Your task to perform on an android device: delete a single message in the gmail app Image 0: 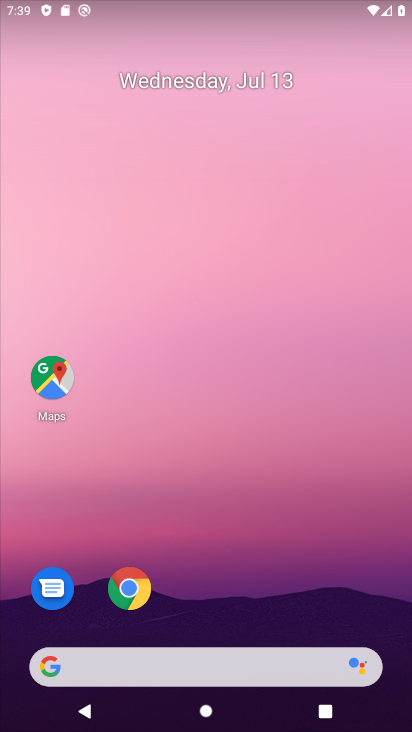
Step 0: drag from (148, 593) to (186, 34)
Your task to perform on an android device: delete a single message in the gmail app Image 1: 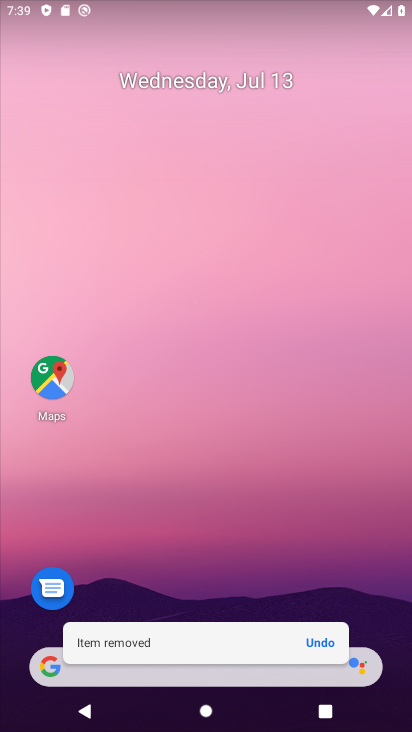
Step 1: drag from (173, 711) to (249, 22)
Your task to perform on an android device: delete a single message in the gmail app Image 2: 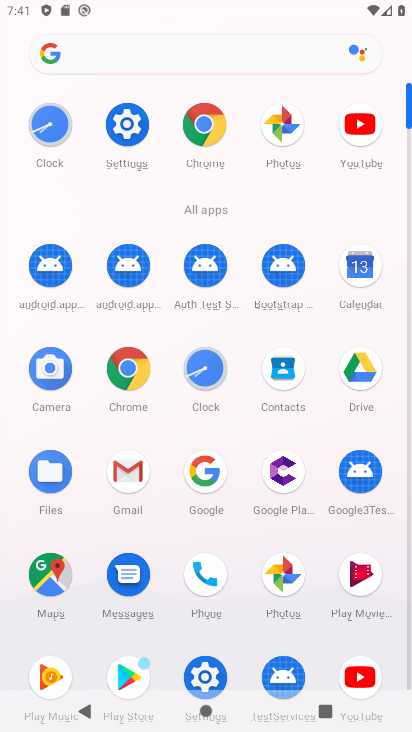
Step 2: click (132, 479)
Your task to perform on an android device: delete a single message in the gmail app Image 3: 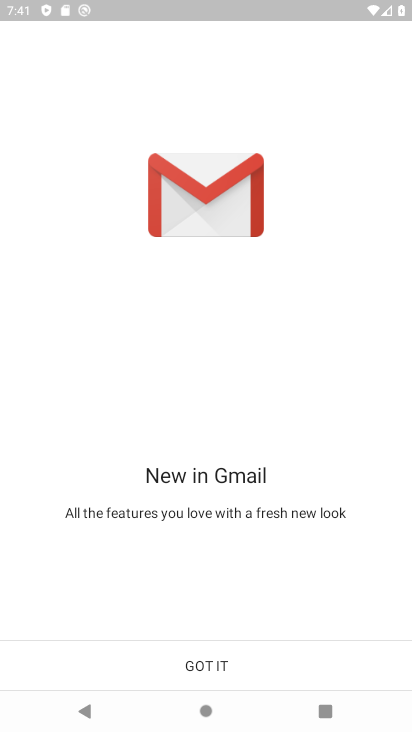
Step 3: click (236, 647)
Your task to perform on an android device: delete a single message in the gmail app Image 4: 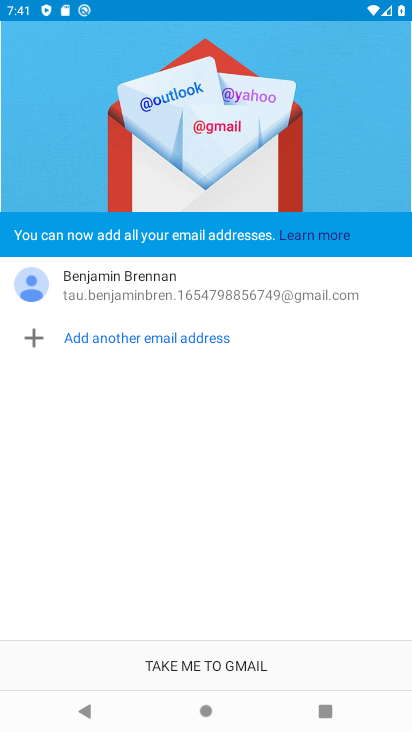
Step 4: click (255, 659)
Your task to perform on an android device: delete a single message in the gmail app Image 5: 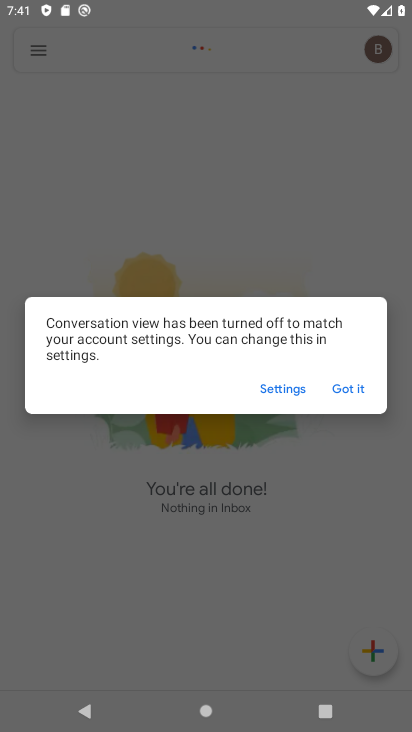
Step 5: click (339, 386)
Your task to perform on an android device: delete a single message in the gmail app Image 6: 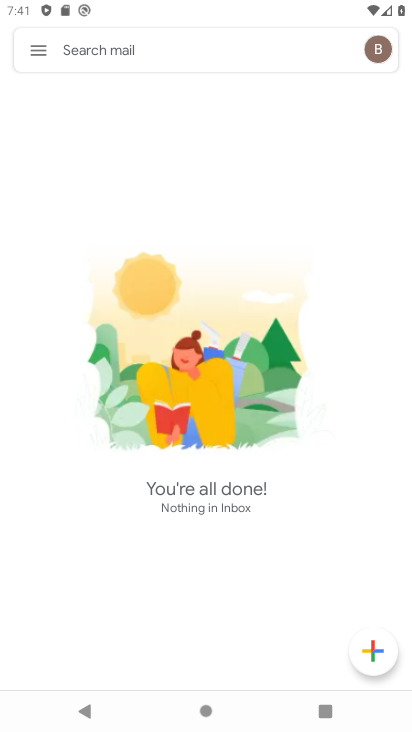
Step 6: task complete